Your task to perform on an android device: Go to location settings Image 0: 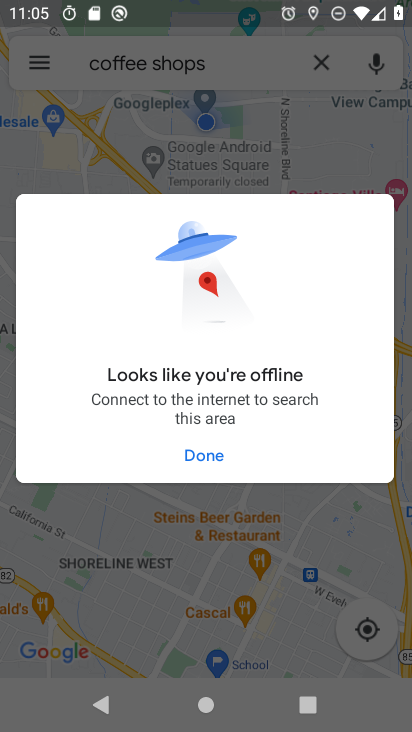
Step 0: press home button
Your task to perform on an android device: Go to location settings Image 1: 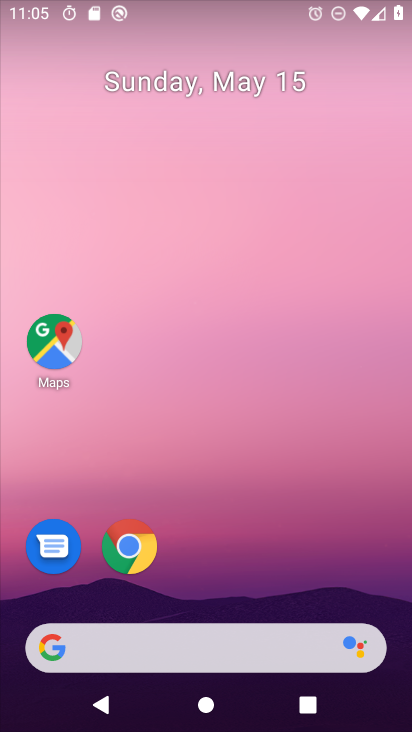
Step 1: drag from (275, 566) to (320, 138)
Your task to perform on an android device: Go to location settings Image 2: 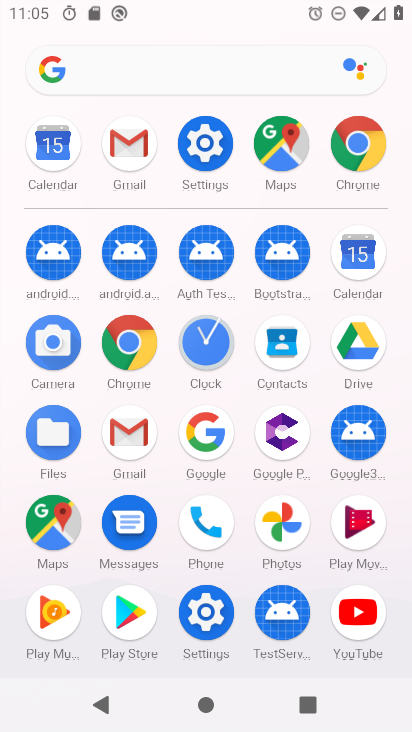
Step 2: click (208, 159)
Your task to perform on an android device: Go to location settings Image 3: 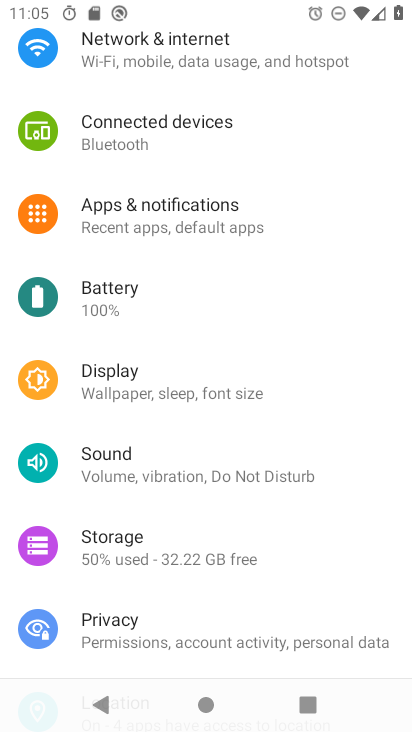
Step 3: drag from (236, 575) to (343, 217)
Your task to perform on an android device: Go to location settings Image 4: 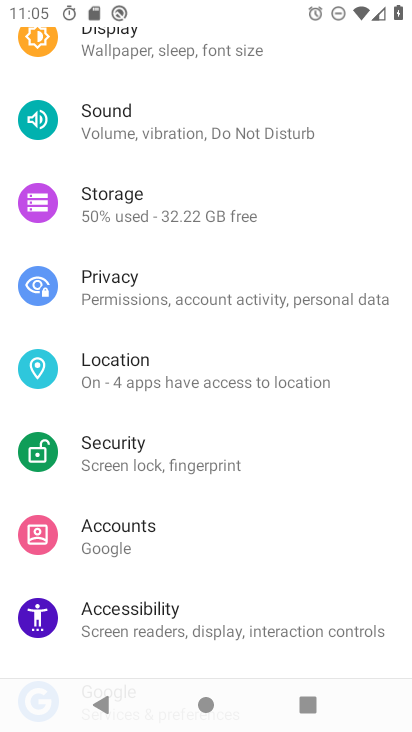
Step 4: click (201, 372)
Your task to perform on an android device: Go to location settings Image 5: 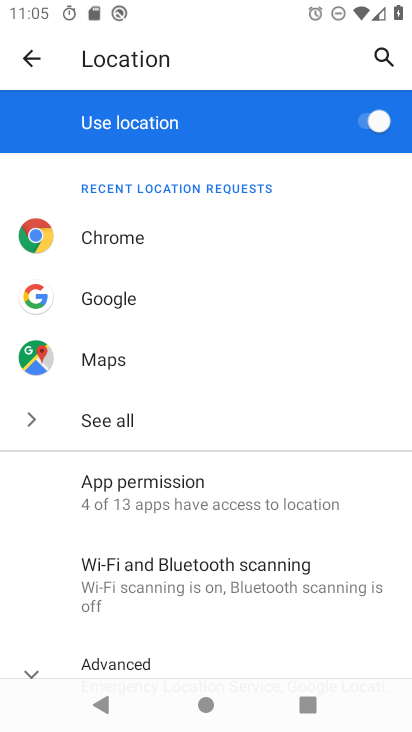
Step 5: task complete